Your task to perform on an android device: turn vacation reply on in the gmail app Image 0: 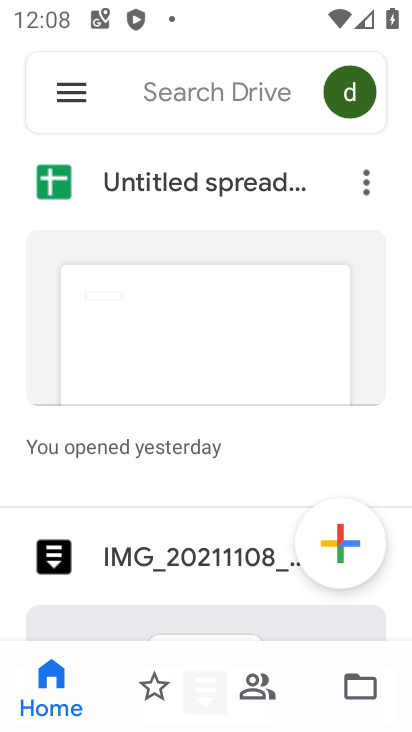
Step 0: press home button
Your task to perform on an android device: turn vacation reply on in the gmail app Image 1: 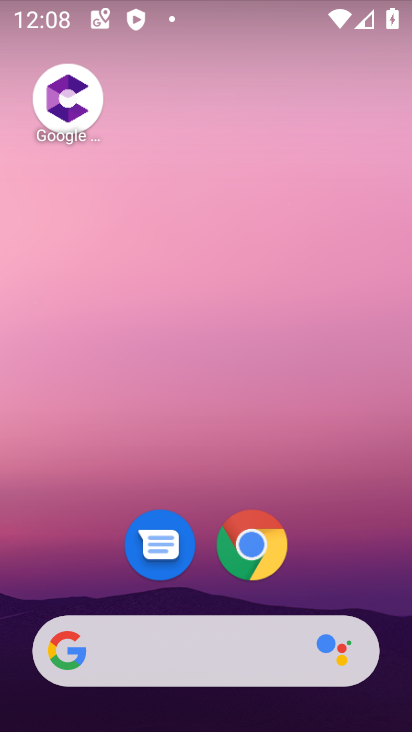
Step 1: drag from (330, 571) to (345, 37)
Your task to perform on an android device: turn vacation reply on in the gmail app Image 2: 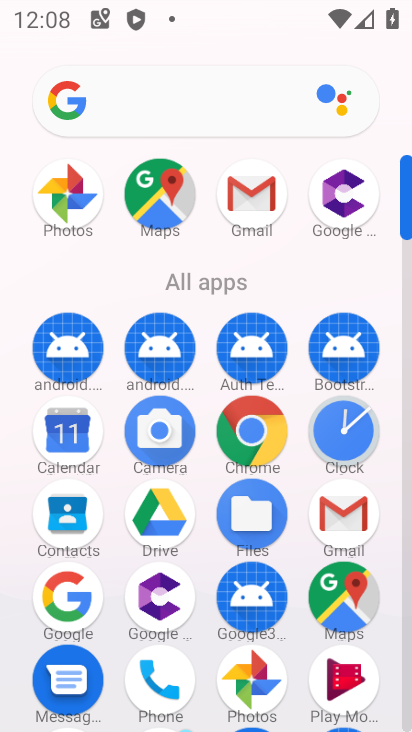
Step 2: click (268, 204)
Your task to perform on an android device: turn vacation reply on in the gmail app Image 3: 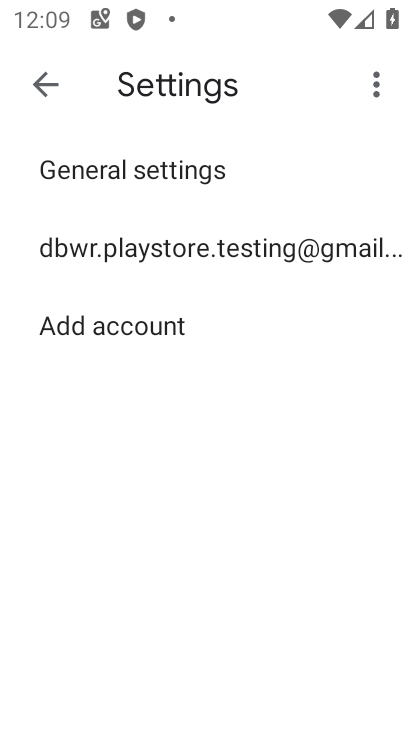
Step 3: click (76, 265)
Your task to perform on an android device: turn vacation reply on in the gmail app Image 4: 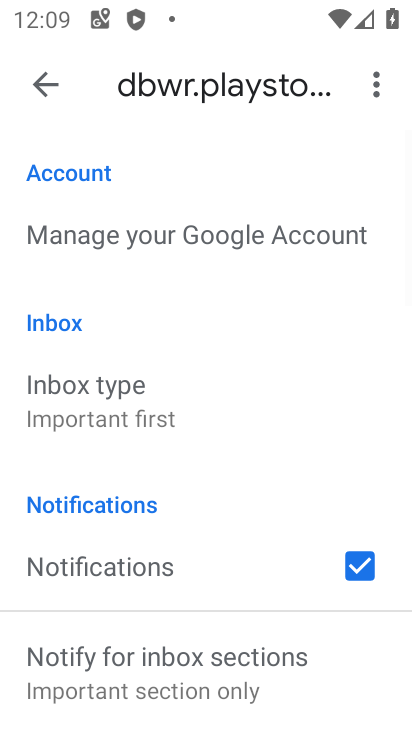
Step 4: drag from (208, 629) to (212, 306)
Your task to perform on an android device: turn vacation reply on in the gmail app Image 5: 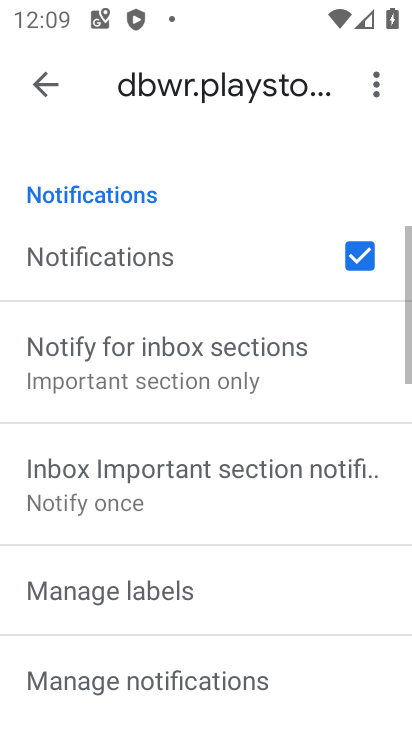
Step 5: drag from (226, 525) to (244, 259)
Your task to perform on an android device: turn vacation reply on in the gmail app Image 6: 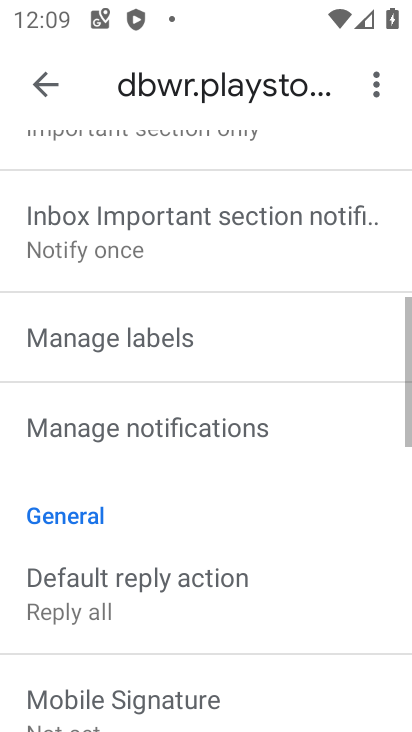
Step 6: drag from (267, 575) to (259, 411)
Your task to perform on an android device: turn vacation reply on in the gmail app Image 7: 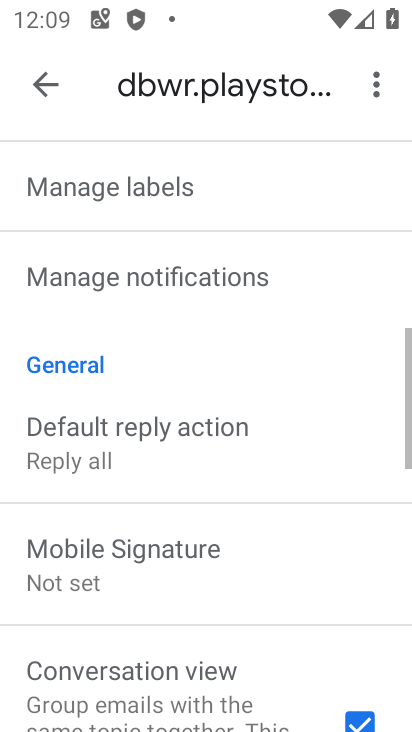
Step 7: drag from (266, 532) to (272, 167)
Your task to perform on an android device: turn vacation reply on in the gmail app Image 8: 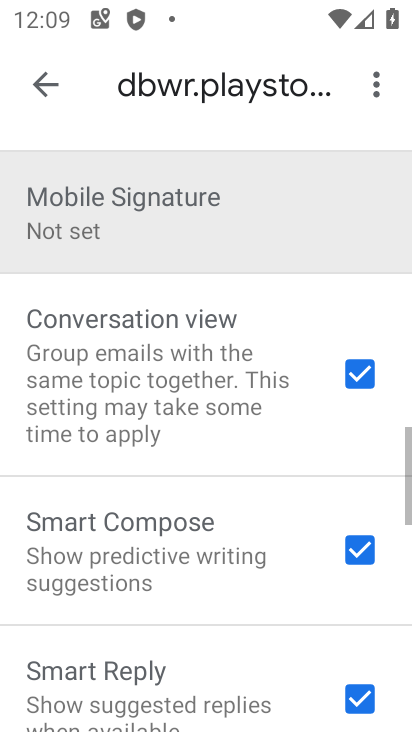
Step 8: drag from (209, 557) to (206, 345)
Your task to perform on an android device: turn vacation reply on in the gmail app Image 9: 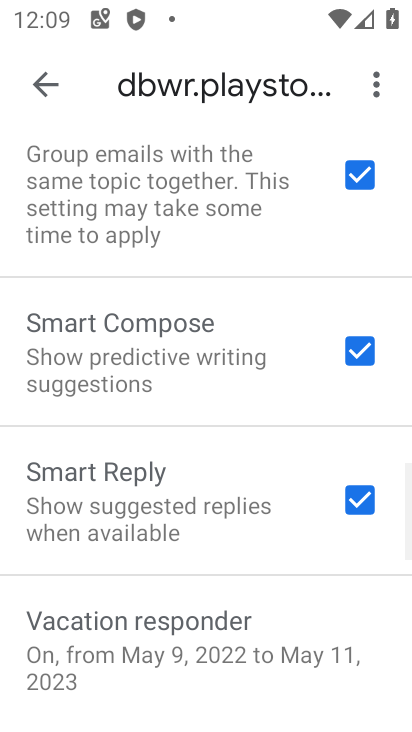
Step 9: drag from (217, 527) to (245, 260)
Your task to perform on an android device: turn vacation reply on in the gmail app Image 10: 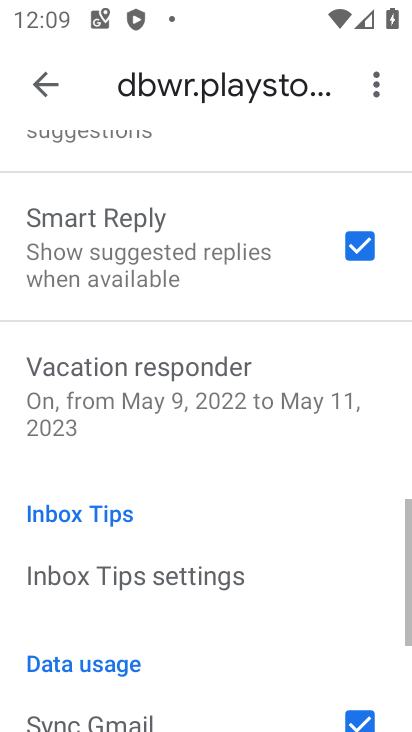
Step 10: click (201, 417)
Your task to perform on an android device: turn vacation reply on in the gmail app Image 11: 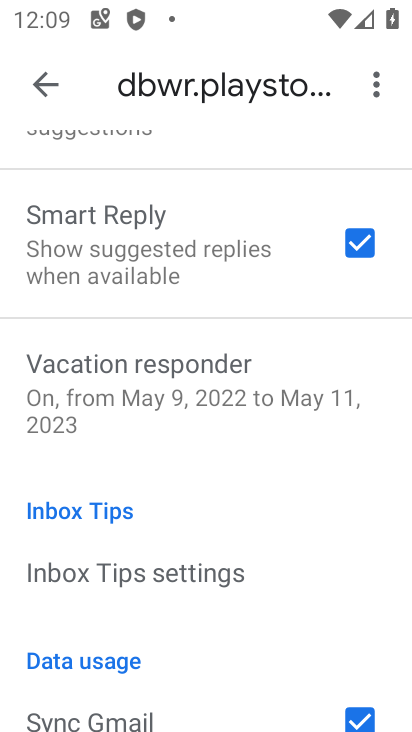
Step 11: click (221, 401)
Your task to perform on an android device: turn vacation reply on in the gmail app Image 12: 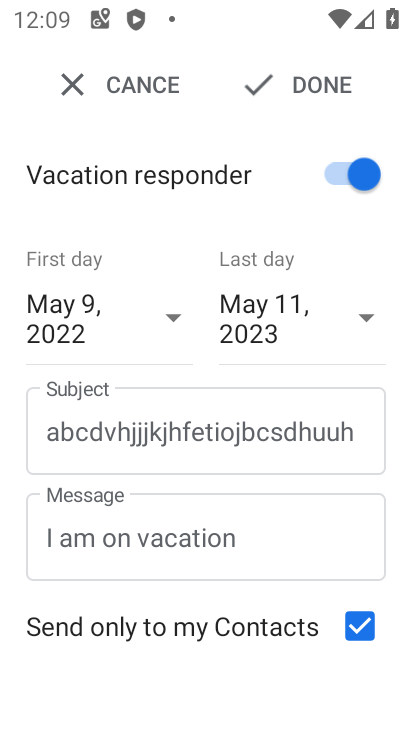
Step 12: click (167, 314)
Your task to perform on an android device: turn vacation reply on in the gmail app Image 13: 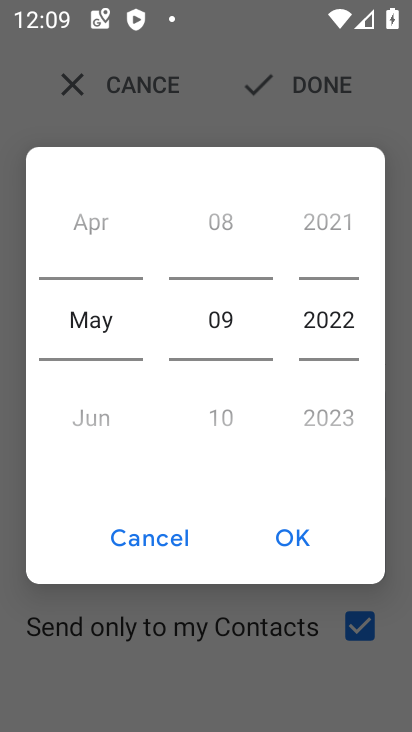
Step 13: drag from (229, 406) to (250, 152)
Your task to perform on an android device: turn vacation reply on in the gmail app Image 14: 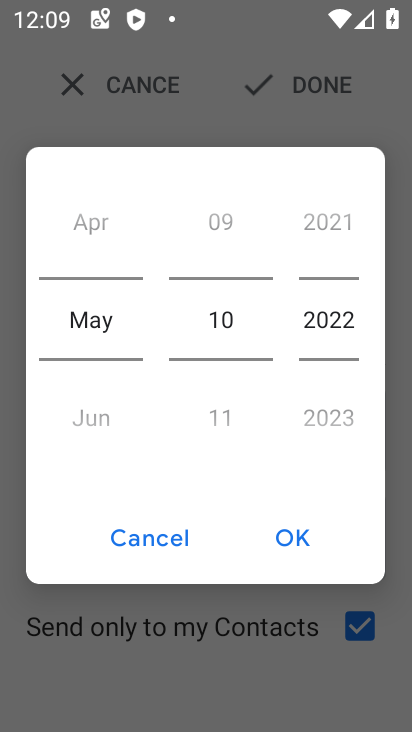
Step 14: drag from (226, 412) to (223, 236)
Your task to perform on an android device: turn vacation reply on in the gmail app Image 15: 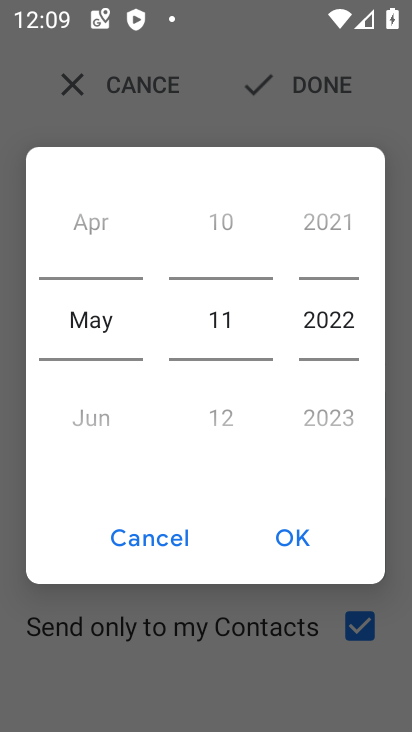
Step 15: click (292, 544)
Your task to perform on an android device: turn vacation reply on in the gmail app Image 16: 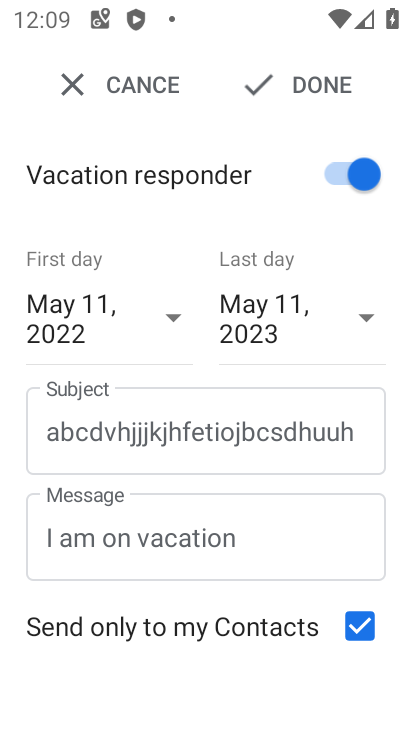
Step 16: click (315, 88)
Your task to perform on an android device: turn vacation reply on in the gmail app Image 17: 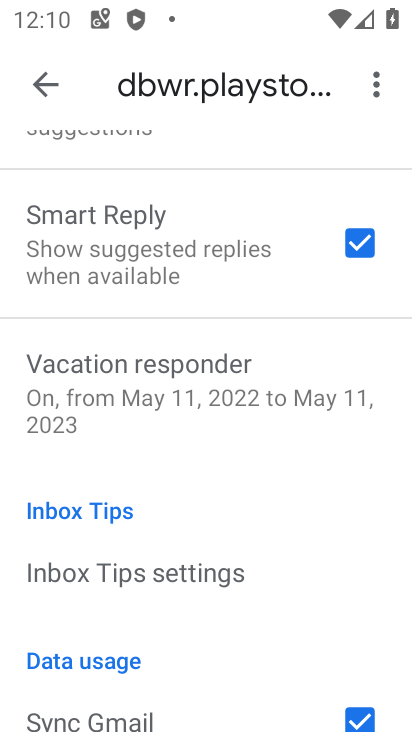
Step 17: task complete